Your task to perform on an android device: Go to wifi settings Image 0: 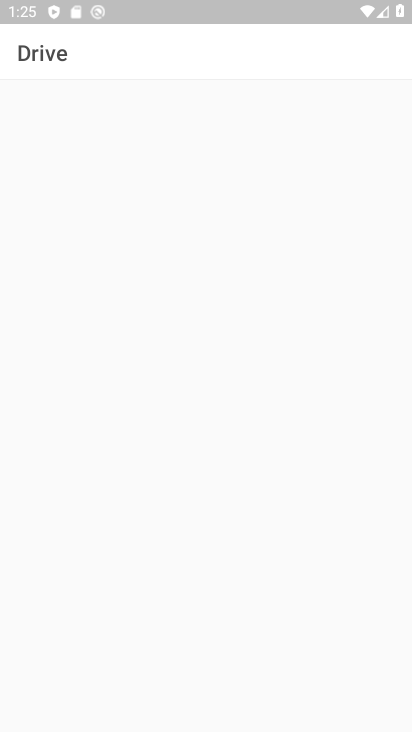
Step 0: press home button
Your task to perform on an android device: Go to wifi settings Image 1: 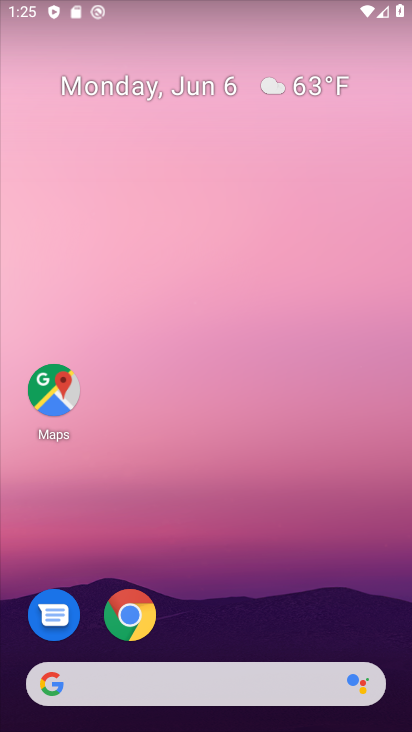
Step 1: drag from (233, 651) to (287, 284)
Your task to perform on an android device: Go to wifi settings Image 2: 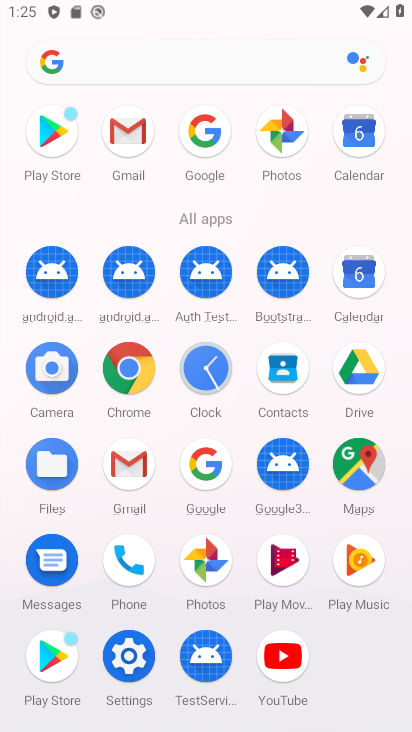
Step 2: click (116, 651)
Your task to perform on an android device: Go to wifi settings Image 3: 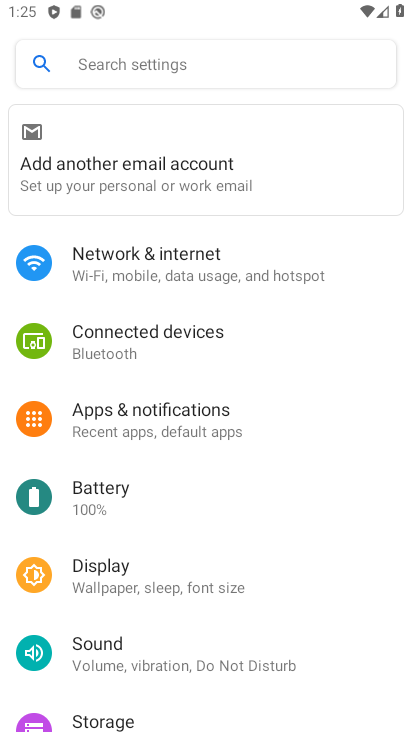
Step 3: click (253, 279)
Your task to perform on an android device: Go to wifi settings Image 4: 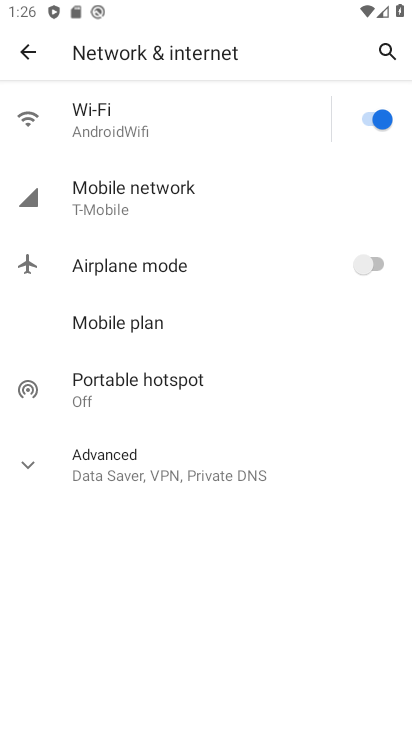
Step 4: click (180, 137)
Your task to perform on an android device: Go to wifi settings Image 5: 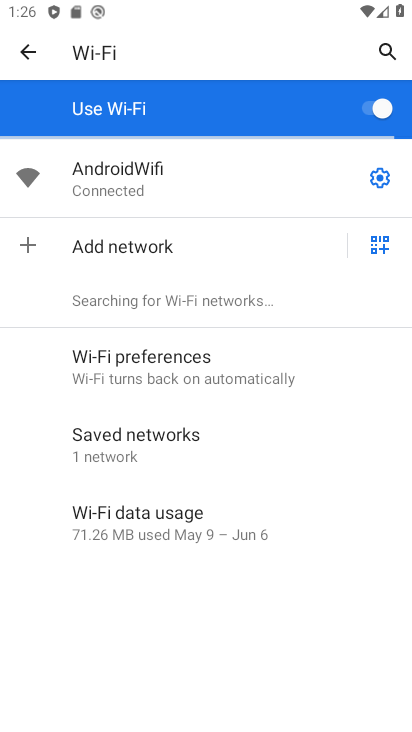
Step 5: task complete